Your task to perform on an android device: snooze an email in the gmail app Image 0: 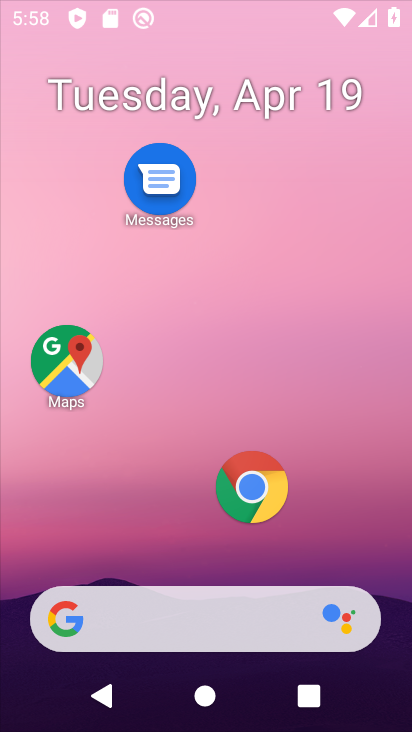
Step 0: click (223, 86)
Your task to perform on an android device: snooze an email in the gmail app Image 1: 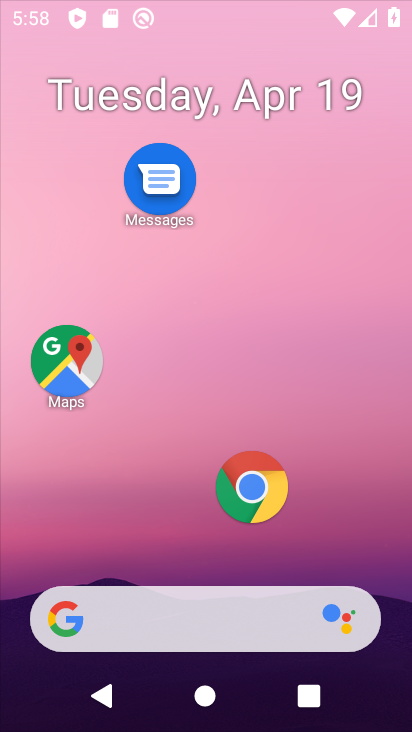
Step 1: press home button
Your task to perform on an android device: snooze an email in the gmail app Image 2: 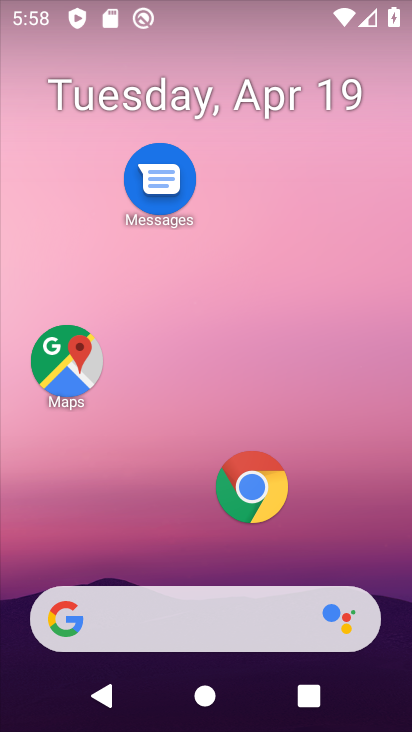
Step 2: drag from (200, 275) to (213, 0)
Your task to perform on an android device: snooze an email in the gmail app Image 3: 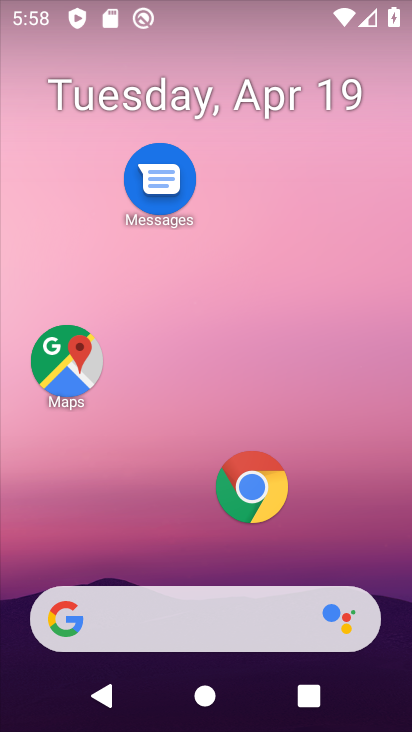
Step 3: drag from (207, 550) to (217, 40)
Your task to perform on an android device: snooze an email in the gmail app Image 4: 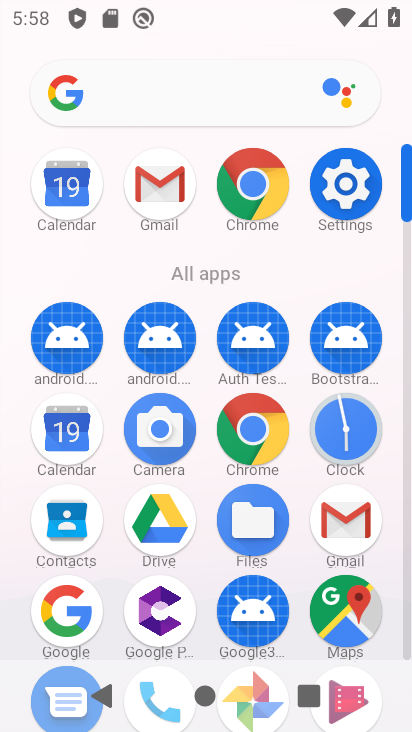
Step 4: click (157, 177)
Your task to perform on an android device: snooze an email in the gmail app Image 5: 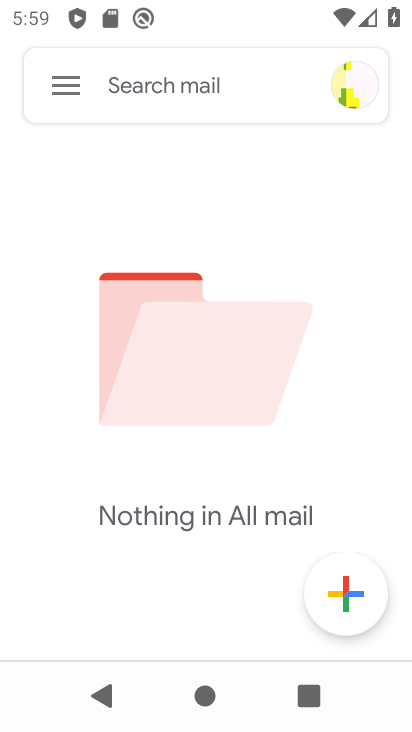
Step 5: click (53, 82)
Your task to perform on an android device: snooze an email in the gmail app Image 6: 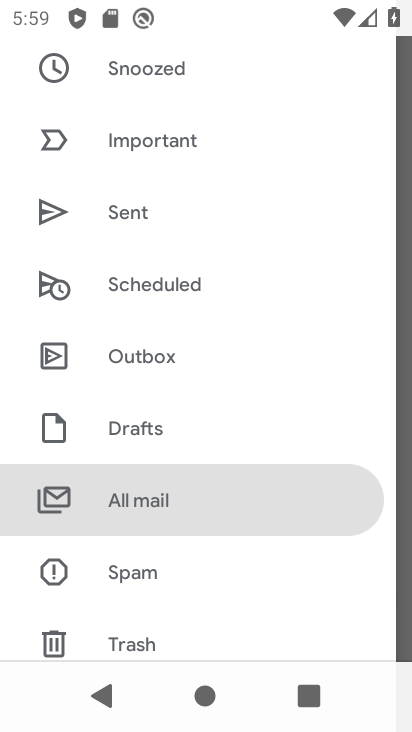
Step 6: click (144, 483)
Your task to perform on an android device: snooze an email in the gmail app Image 7: 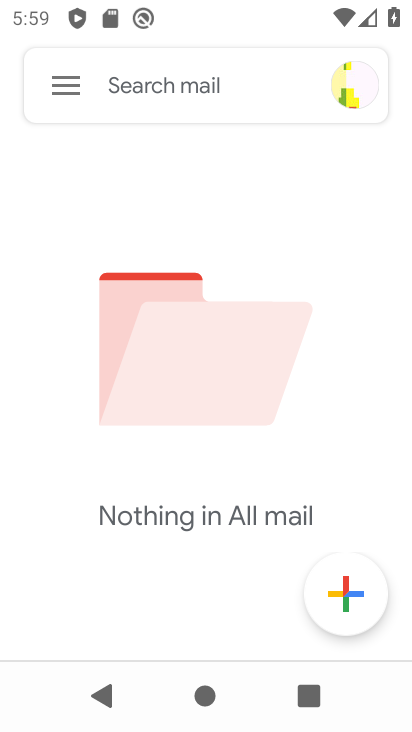
Step 7: task complete